Your task to perform on an android device: Go to Maps Image 0: 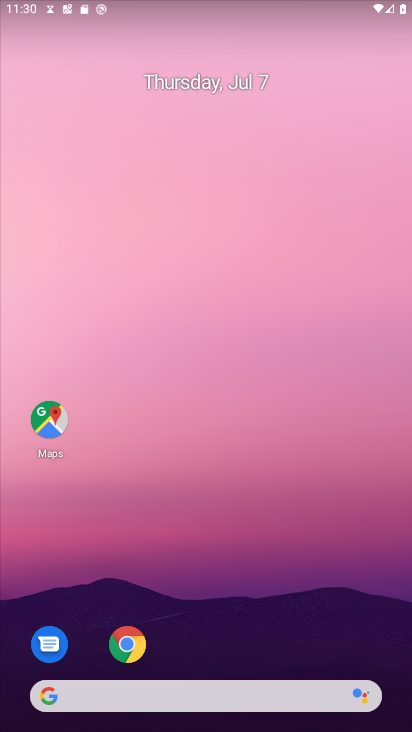
Step 0: press home button
Your task to perform on an android device: Go to Maps Image 1: 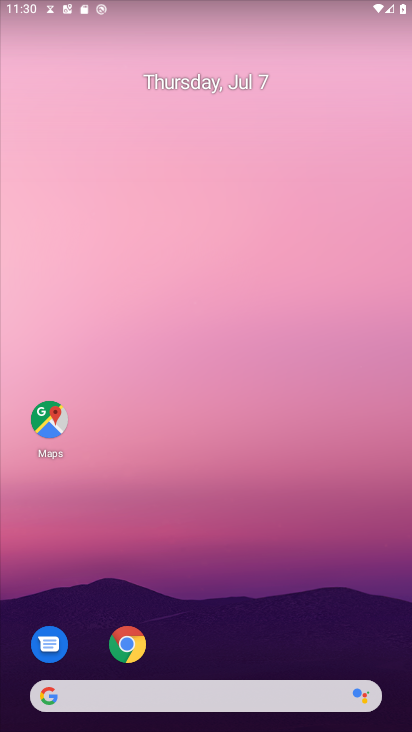
Step 1: press home button
Your task to perform on an android device: Go to Maps Image 2: 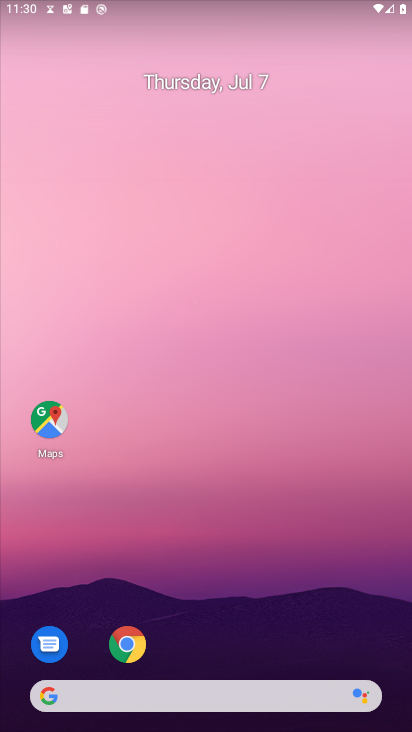
Step 2: press home button
Your task to perform on an android device: Go to Maps Image 3: 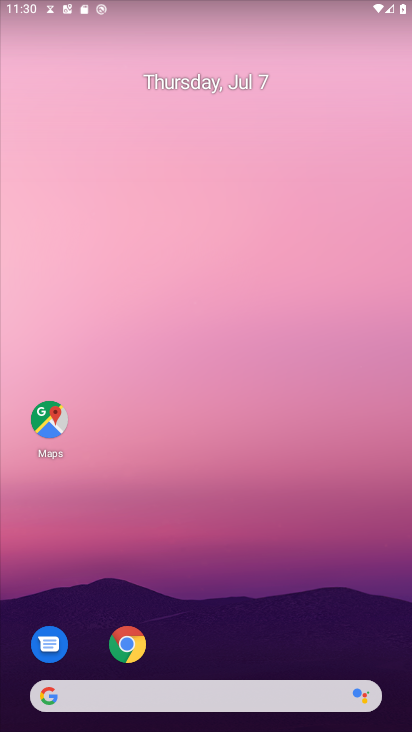
Step 3: drag from (246, 644) to (168, 0)
Your task to perform on an android device: Go to Maps Image 4: 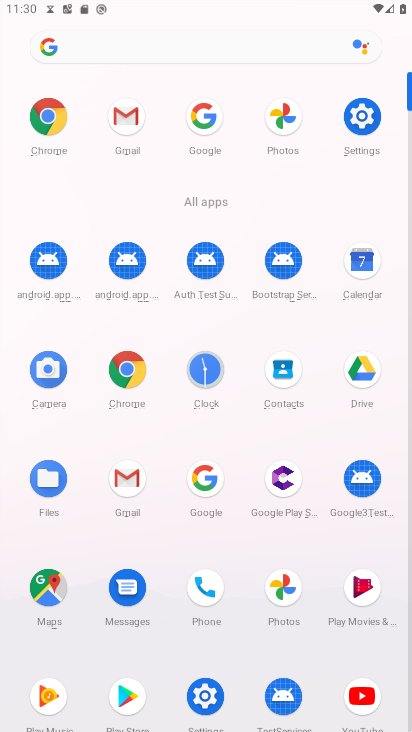
Step 4: click (55, 575)
Your task to perform on an android device: Go to Maps Image 5: 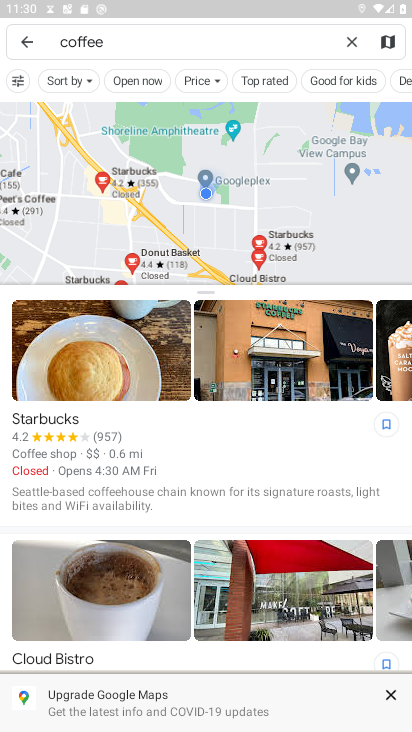
Step 5: task complete